Your task to perform on an android device: Open Chrome and go to settings Image 0: 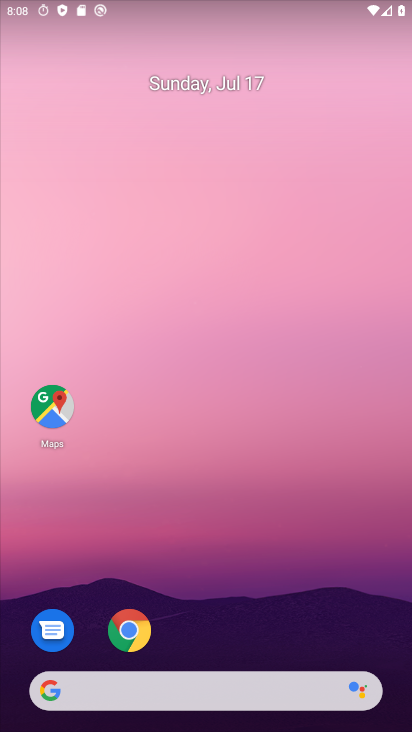
Step 0: click (127, 618)
Your task to perform on an android device: Open Chrome and go to settings Image 1: 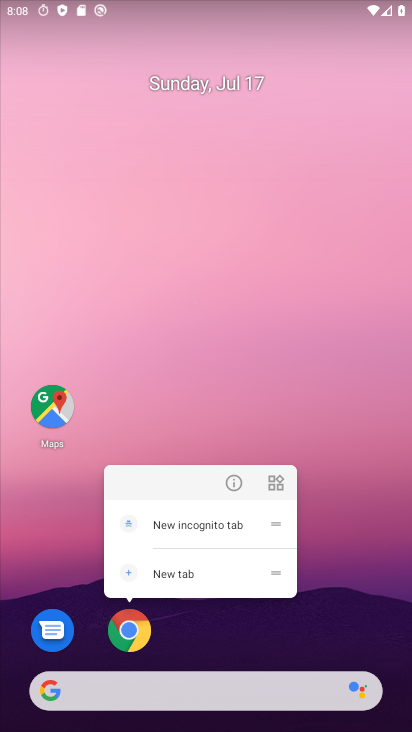
Step 1: click (123, 635)
Your task to perform on an android device: Open Chrome and go to settings Image 2: 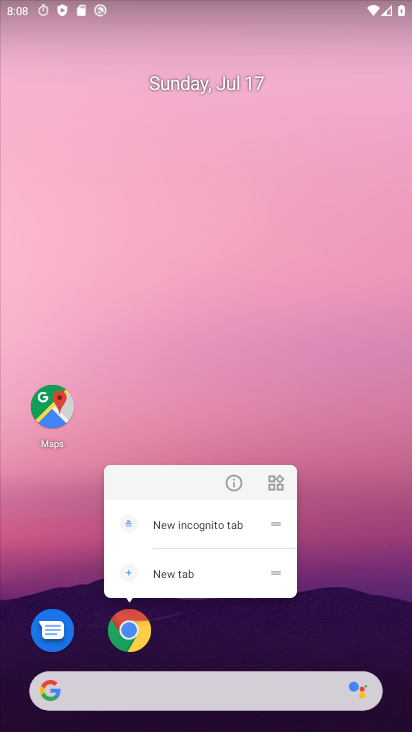
Step 2: click (123, 635)
Your task to perform on an android device: Open Chrome and go to settings Image 3: 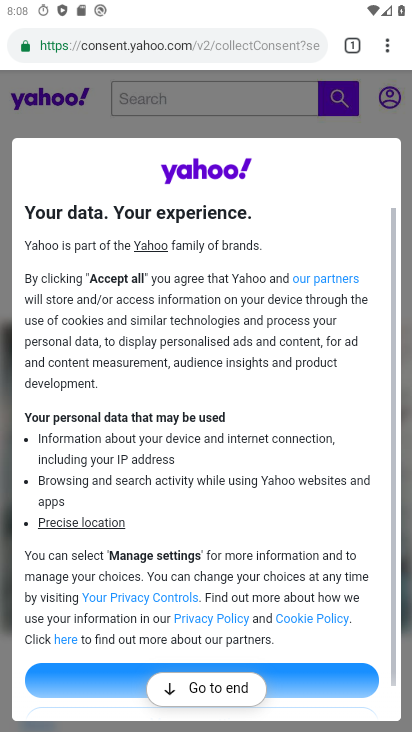
Step 3: click (390, 40)
Your task to perform on an android device: Open Chrome and go to settings Image 4: 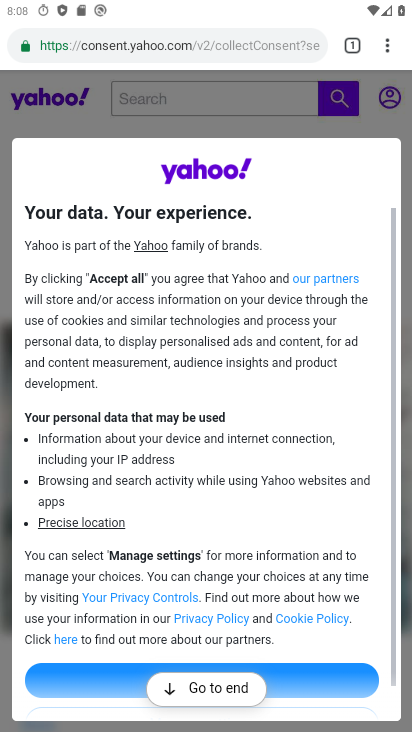
Step 4: click (392, 37)
Your task to perform on an android device: Open Chrome and go to settings Image 5: 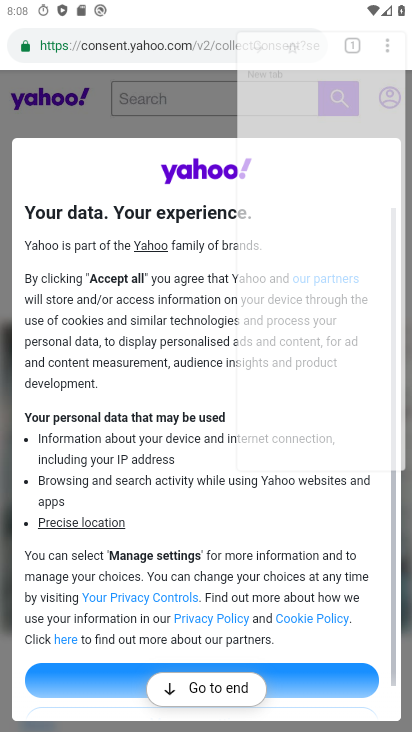
Step 5: click (385, 39)
Your task to perform on an android device: Open Chrome and go to settings Image 6: 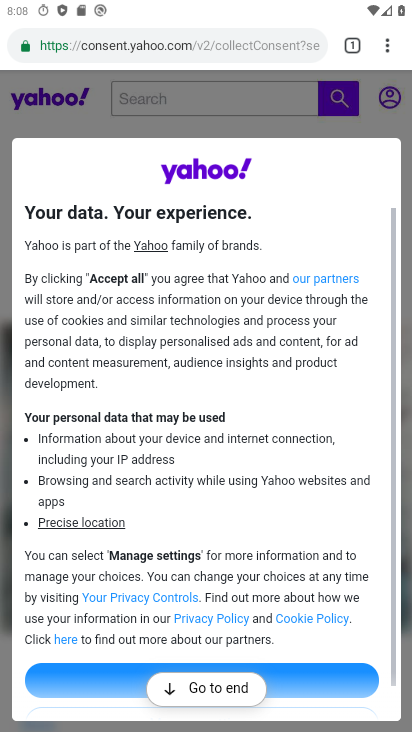
Step 6: click (388, 44)
Your task to perform on an android device: Open Chrome and go to settings Image 7: 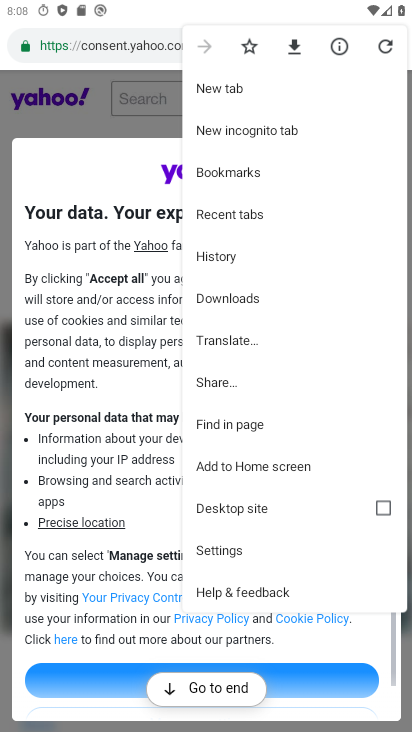
Step 7: click (226, 551)
Your task to perform on an android device: Open Chrome and go to settings Image 8: 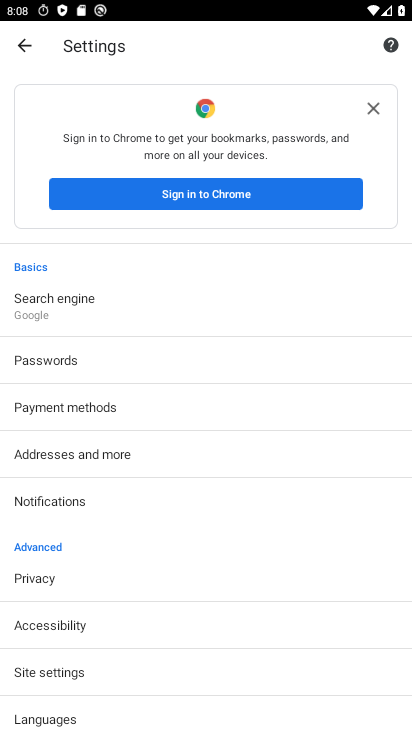
Step 8: task complete